Your task to perform on an android device: Open settings Image 0: 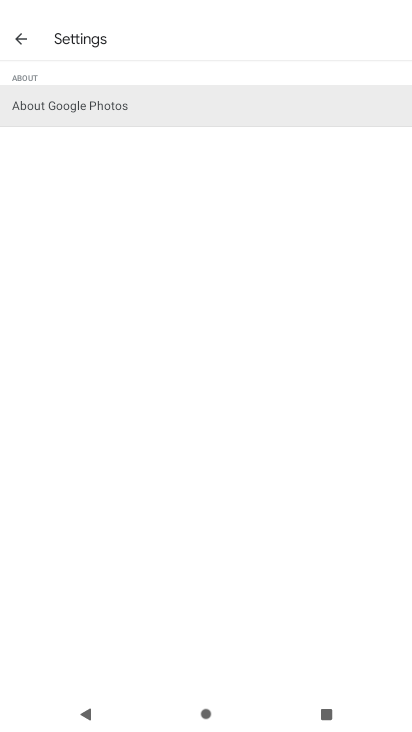
Step 0: press home button
Your task to perform on an android device: Open settings Image 1: 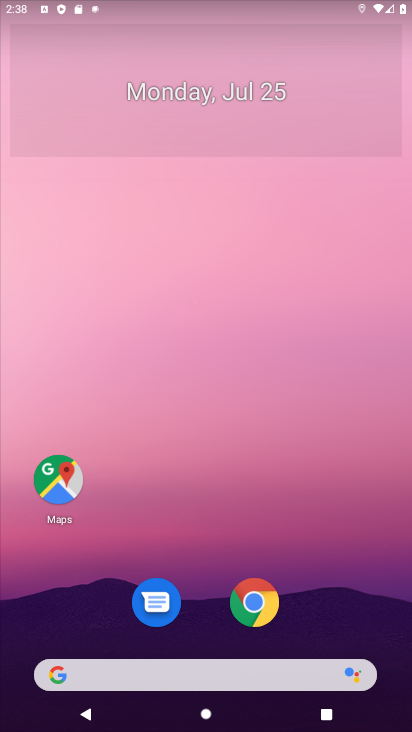
Step 1: drag from (281, 440) to (353, 43)
Your task to perform on an android device: Open settings Image 2: 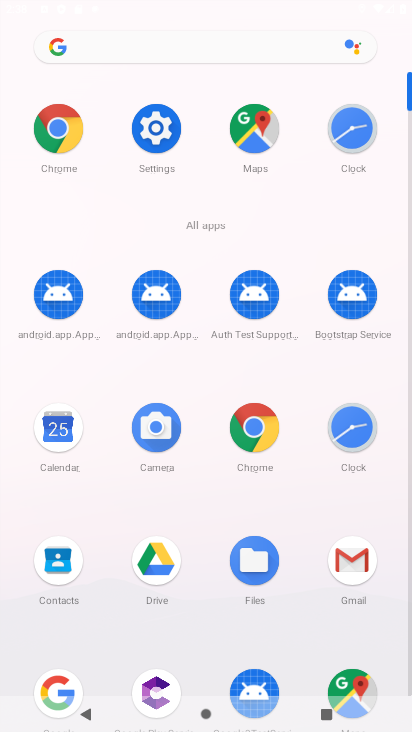
Step 2: click (157, 135)
Your task to perform on an android device: Open settings Image 3: 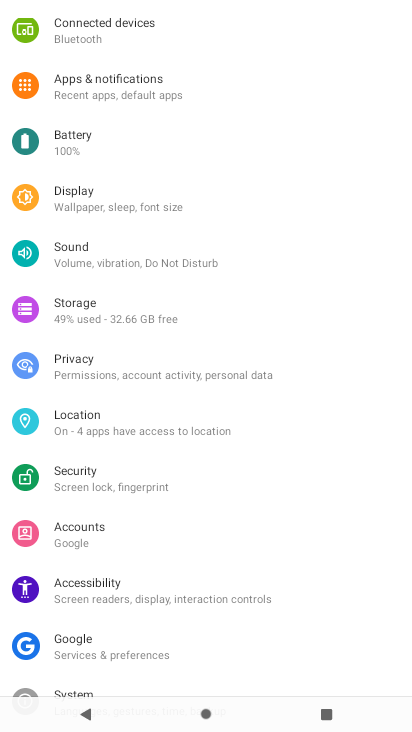
Step 3: task complete